Your task to perform on an android device: Show me productivity apps on the Play Store Image 0: 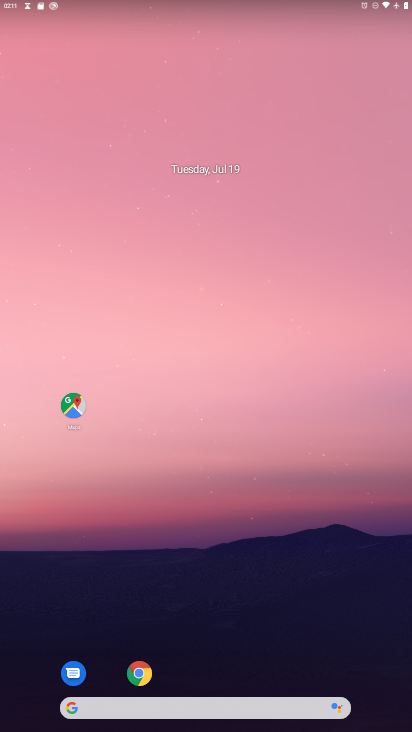
Step 0: drag from (158, 628) to (190, 221)
Your task to perform on an android device: Show me productivity apps on the Play Store Image 1: 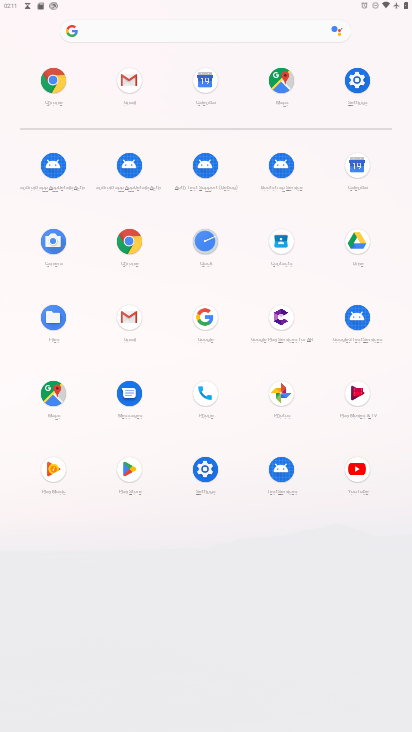
Step 1: click (119, 469)
Your task to perform on an android device: Show me productivity apps on the Play Store Image 2: 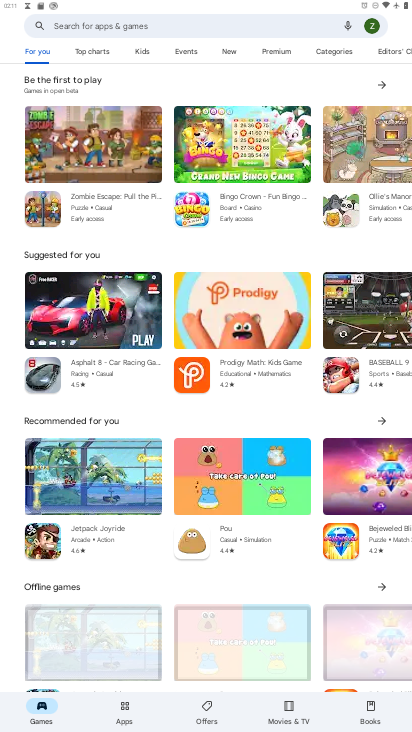
Step 2: click (120, 706)
Your task to perform on an android device: Show me productivity apps on the Play Store Image 3: 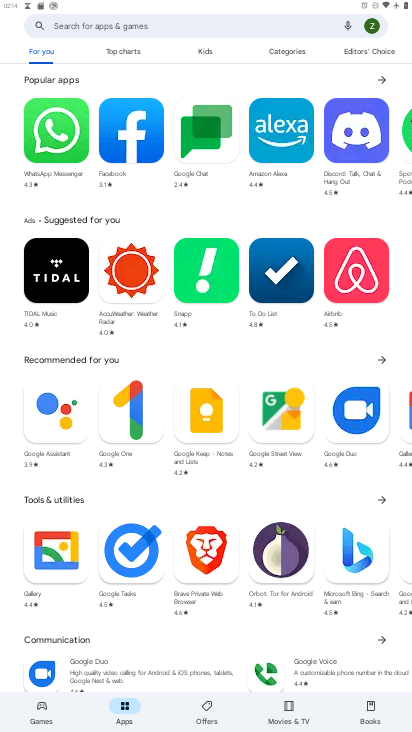
Step 3: task complete